Your task to perform on an android device: Open Wikipedia Image 0: 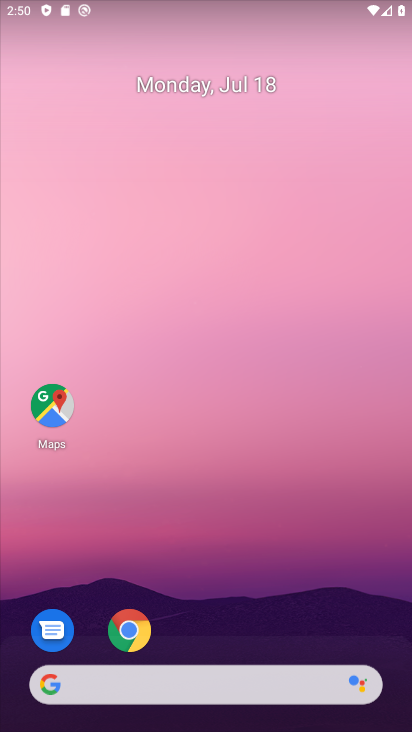
Step 0: click (134, 627)
Your task to perform on an android device: Open Wikipedia Image 1: 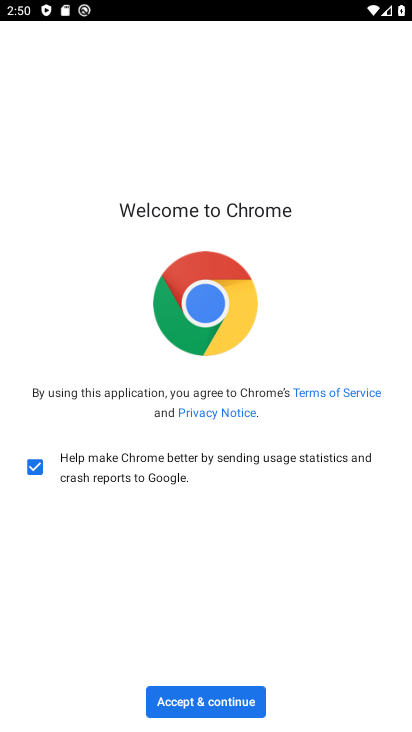
Step 1: click (232, 722)
Your task to perform on an android device: Open Wikipedia Image 2: 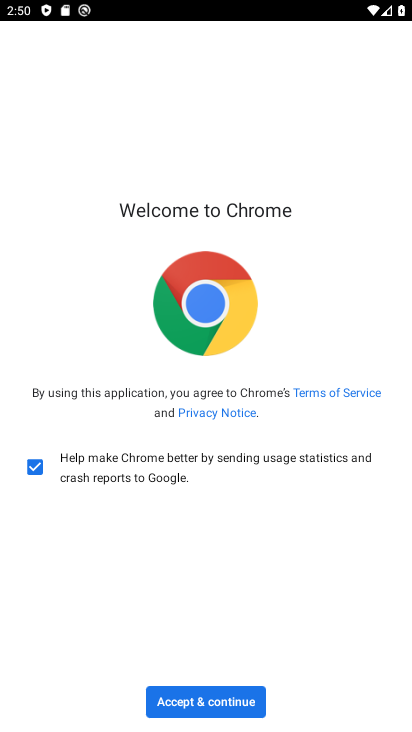
Step 2: click (231, 706)
Your task to perform on an android device: Open Wikipedia Image 3: 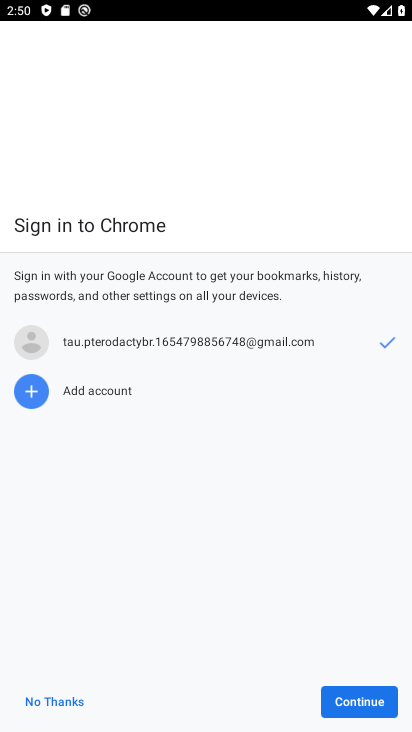
Step 3: click (392, 698)
Your task to perform on an android device: Open Wikipedia Image 4: 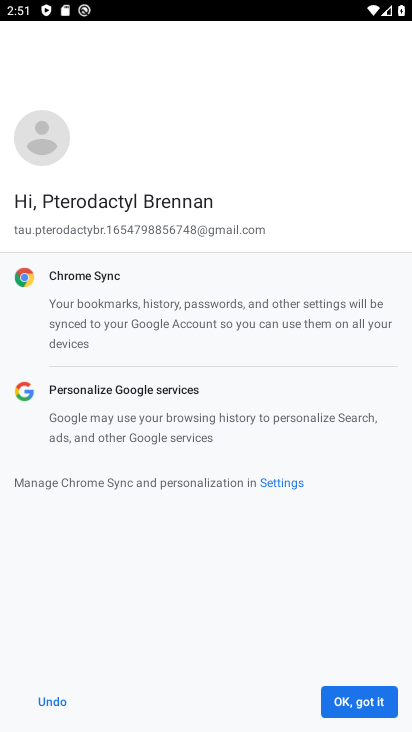
Step 4: click (392, 698)
Your task to perform on an android device: Open Wikipedia Image 5: 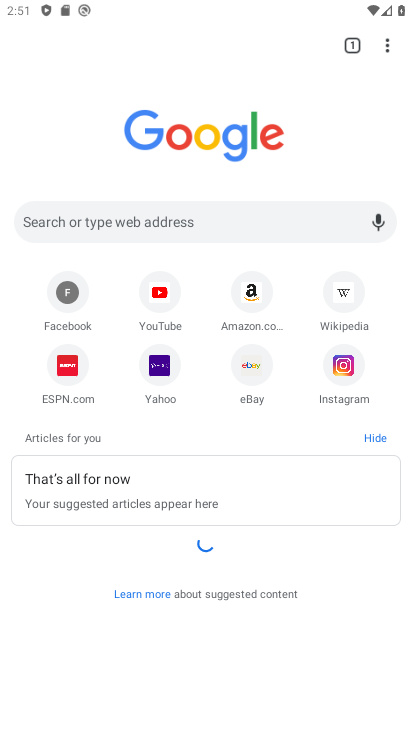
Step 5: click (341, 304)
Your task to perform on an android device: Open Wikipedia Image 6: 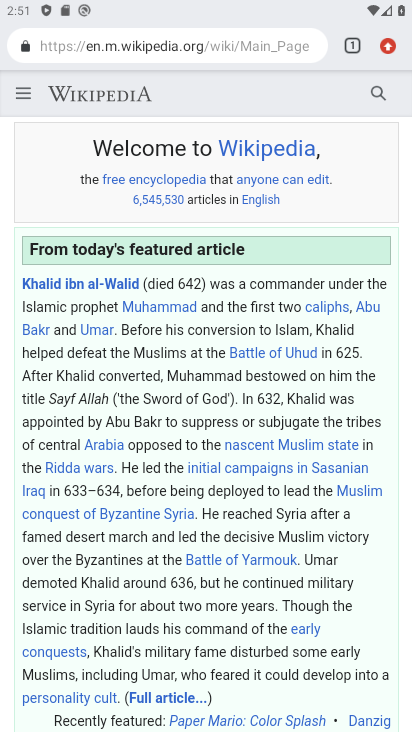
Step 6: task complete